Your task to perform on an android device: Open eBay Image 0: 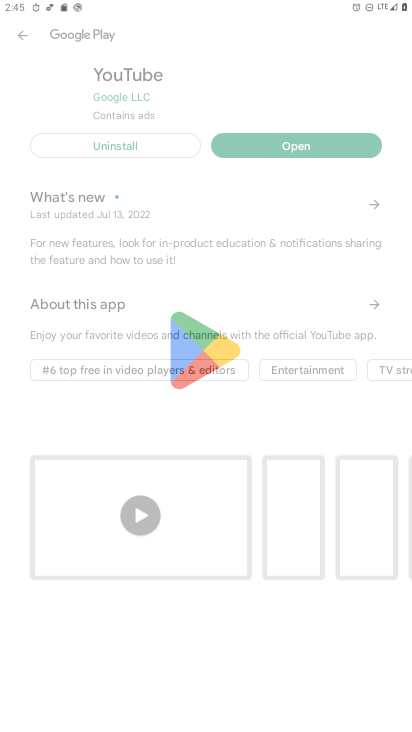
Step 0: drag from (276, 617) to (296, 7)
Your task to perform on an android device: Open eBay Image 1: 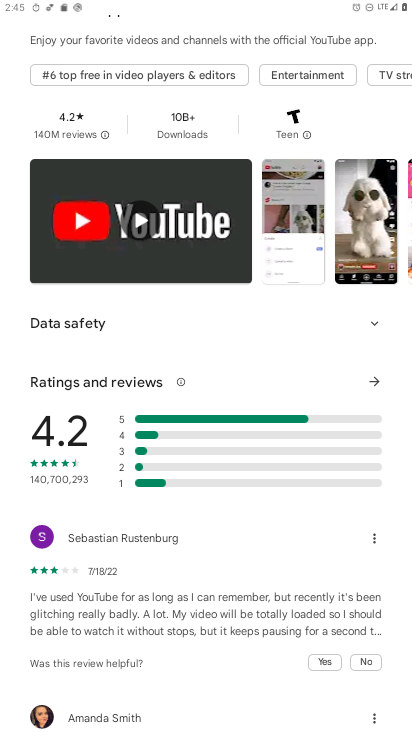
Step 1: press home button
Your task to perform on an android device: Open eBay Image 2: 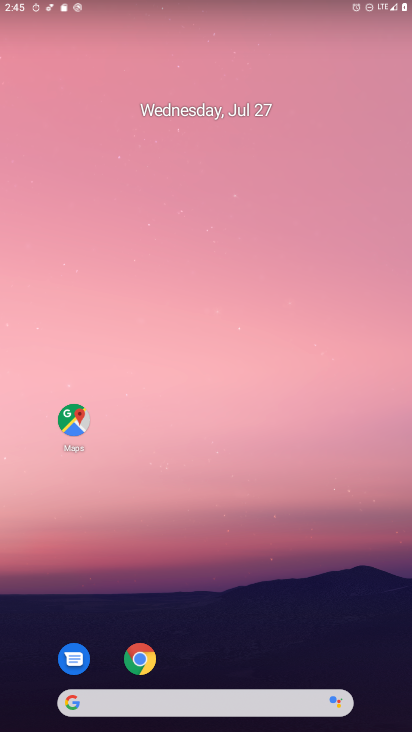
Step 2: drag from (276, 612) to (277, 61)
Your task to perform on an android device: Open eBay Image 3: 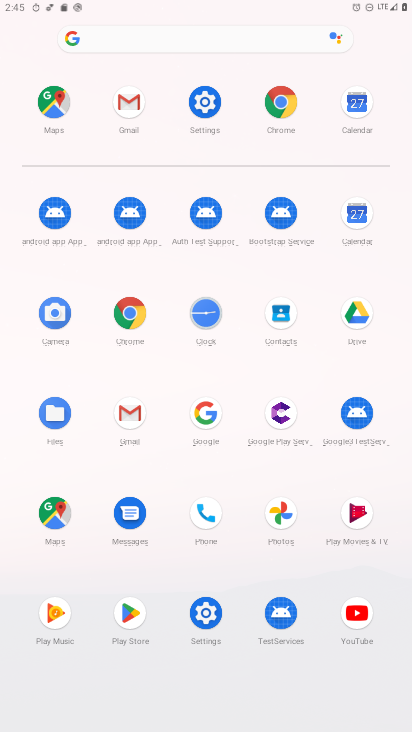
Step 3: click (278, 103)
Your task to perform on an android device: Open eBay Image 4: 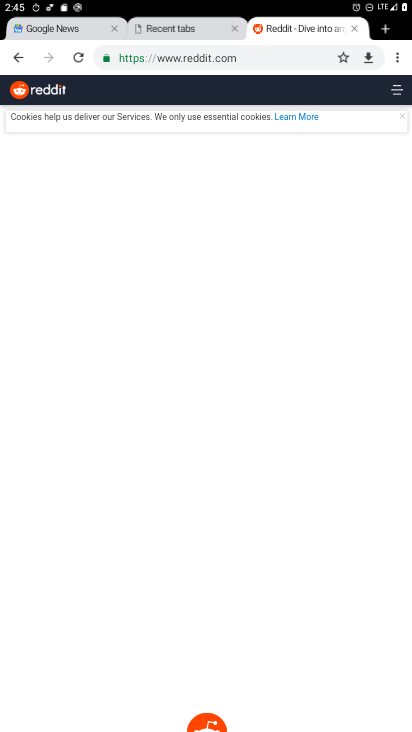
Step 4: click (229, 63)
Your task to perform on an android device: Open eBay Image 5: 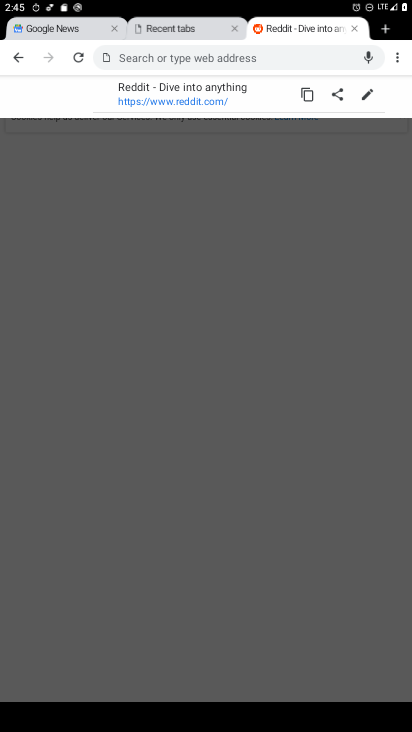
Step 5: type "ebay"
Your task to perform on an android device: Open eBay Image 6: 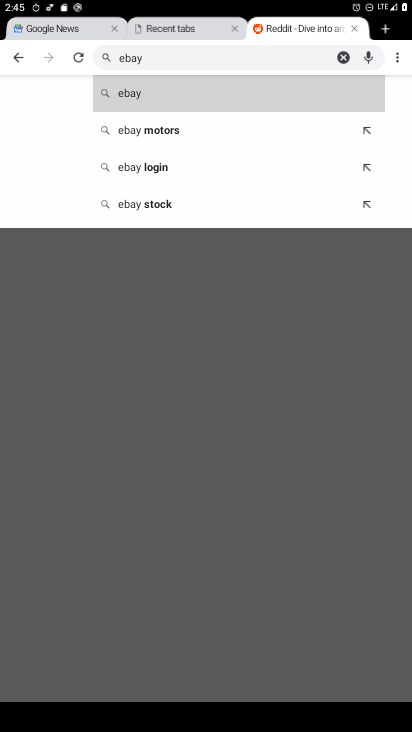
Step 6: click (178, 92)
Your task to perform on an android device: Open eBay Image 7: 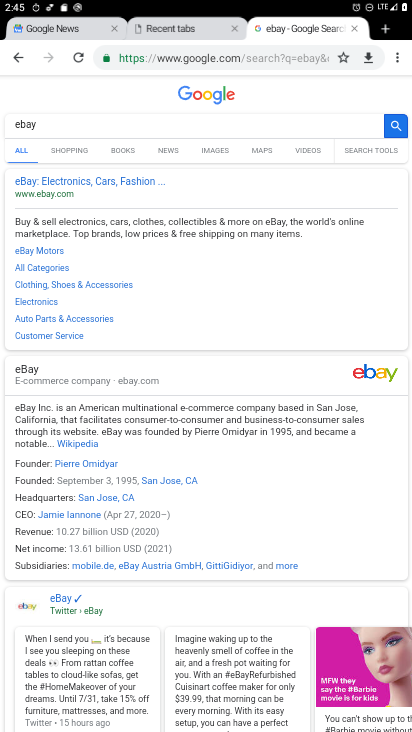
Step 7: click (71, 183)
Your task to perform on an android device: Open eBay Image 8: 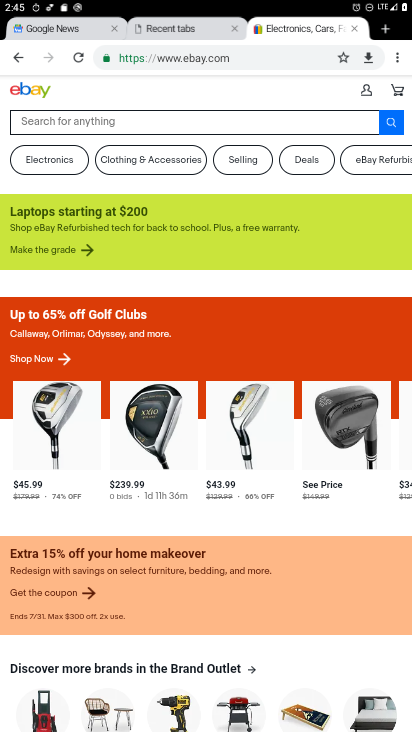
Step 8: task complete